Your task to perform on an android device: Go to Google Image 0: 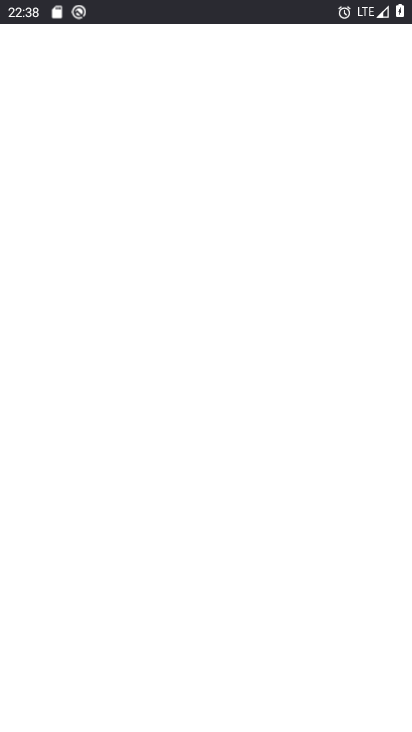
Step 0: drag from (289, 606) to (258, 197)
Your task to perform on an android device: Go to Google Image 1: 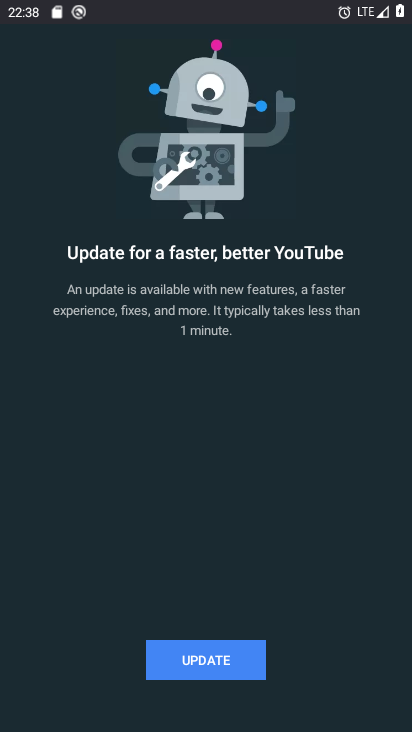
Step 1: press home button
Your task to perform on an android device: Go to Google Image 2: 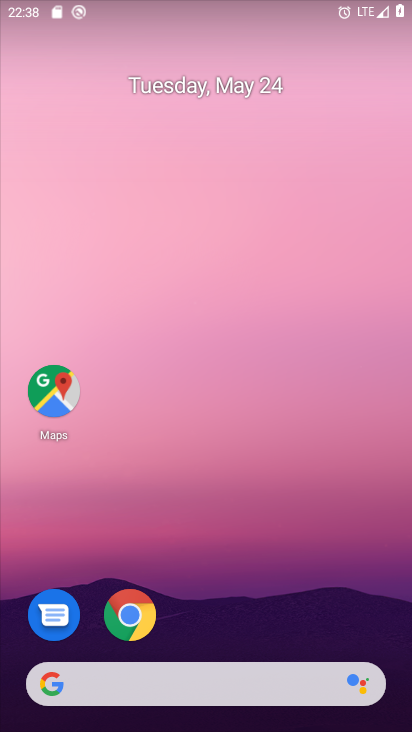
Step 2: drag from (170, 510) to (199, 190)
Your task to perform on an android device: Go to Google Image 3: 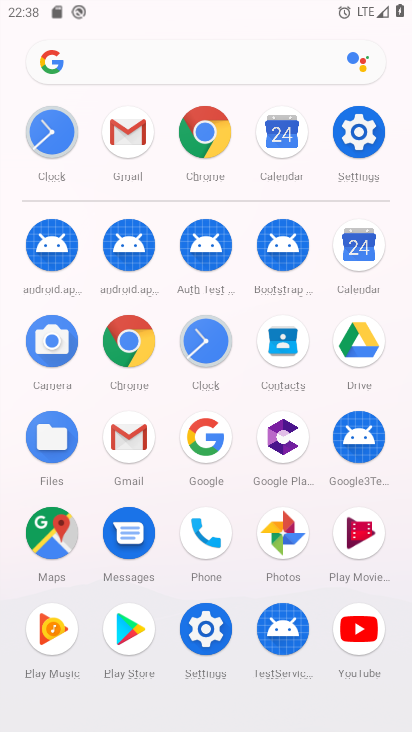
Step 3: click (212, 431)
Your task to perform on an android device: Go to Google Image 4: 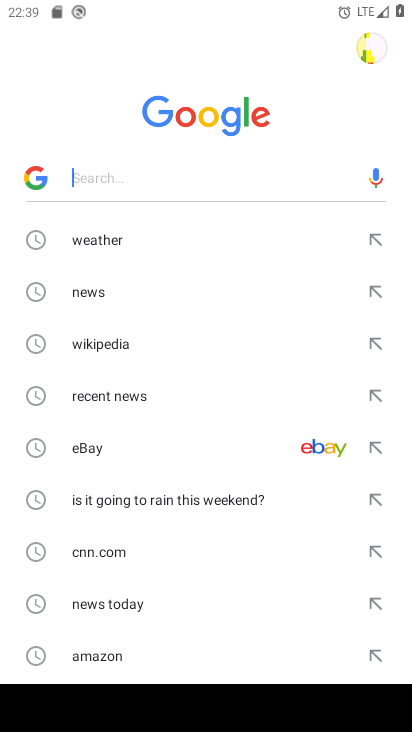
Step 4: task complete